Your task to perform on an android device: Show me popular videos on Youtube Image 0: 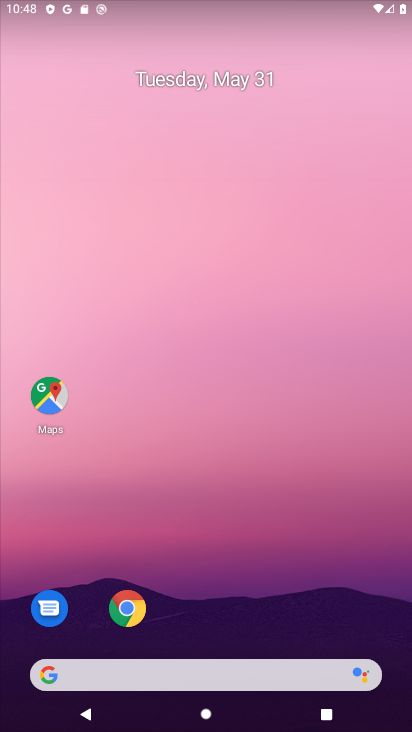
Step 0: drag from (274, 612) to (288, 3)
Your task to perform on an android device: Show me popular videos on Youtube Image 1: 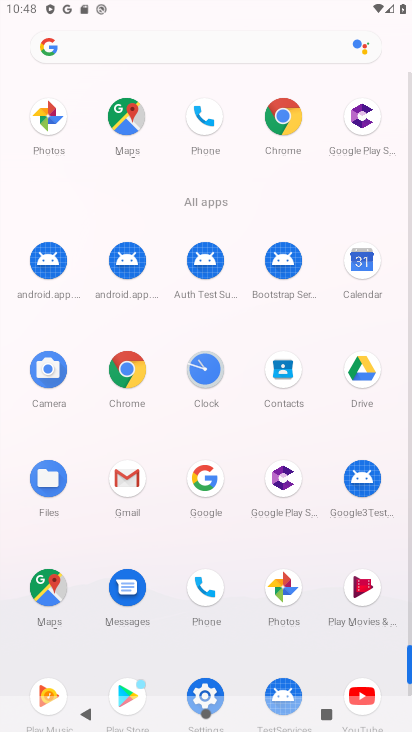
Step 1: click (362, 692)
Your task to perform on an android device: Show me popular videos on Youtube Image 2: 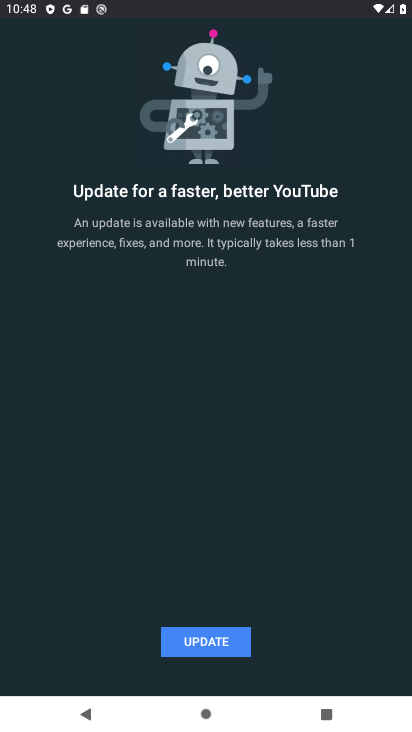
Step 2: click (200, 655)
Your task to perform on an android device: Show me popular videos on Youtube Image 3: 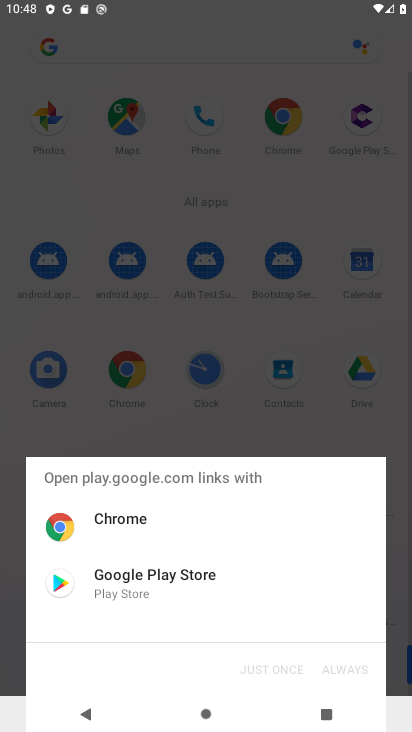
Step 3: click (109, 587)
Your task to perform on an android device: Show me popular videos on Youtube Image 4: 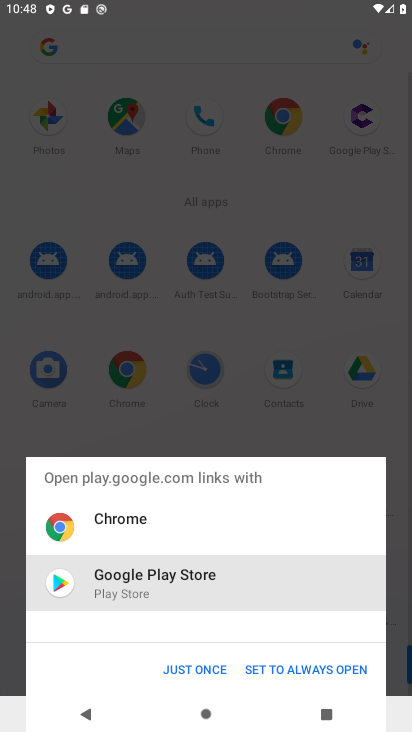
Step 4: click (128, 668)
Your task to perform on an android device: Show me popular videos on Youtube Image 5: 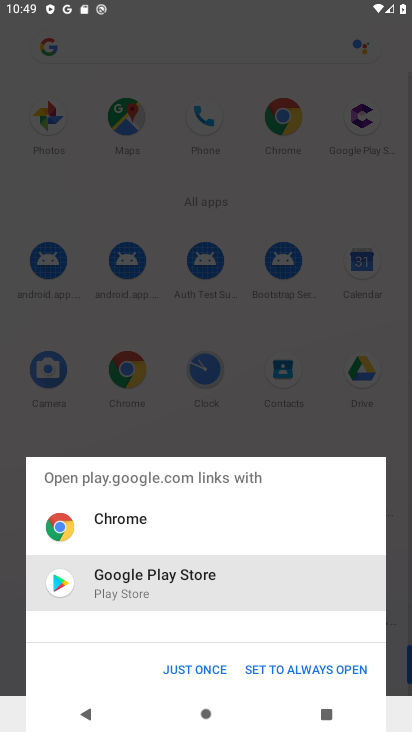
Step 5: click (167, 675)
Your task to perform on an android device: Show me popular videos on Youtube Image 6: 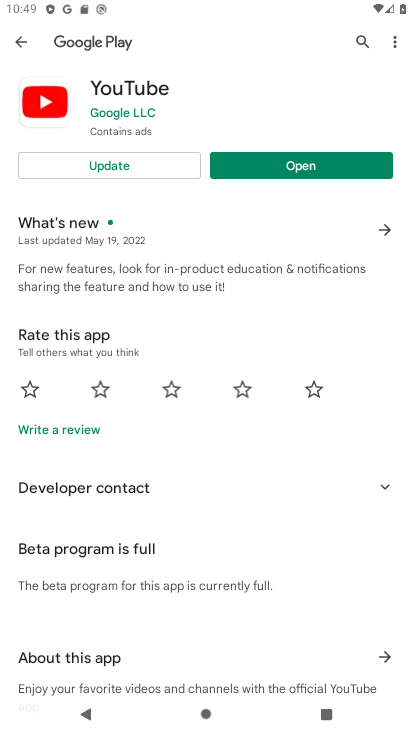
Step 6: click (171, 174)
Your task to perform on an android device: Show me popular videos on Youtube Image 7: 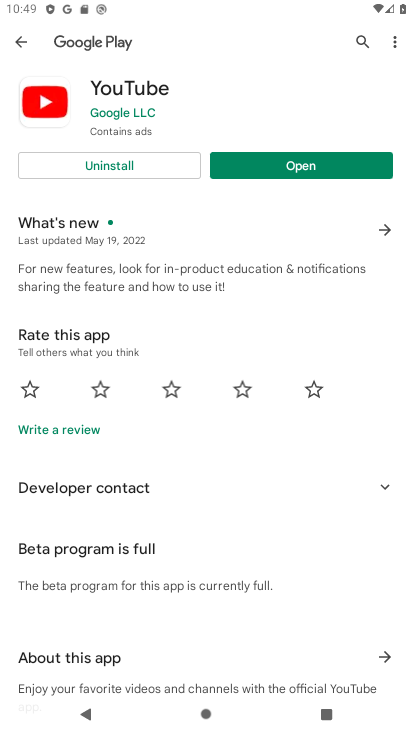
Step 7: click (275, 167)
Your task to perform on an android device: Show me popular videos on Youtube Image 8: 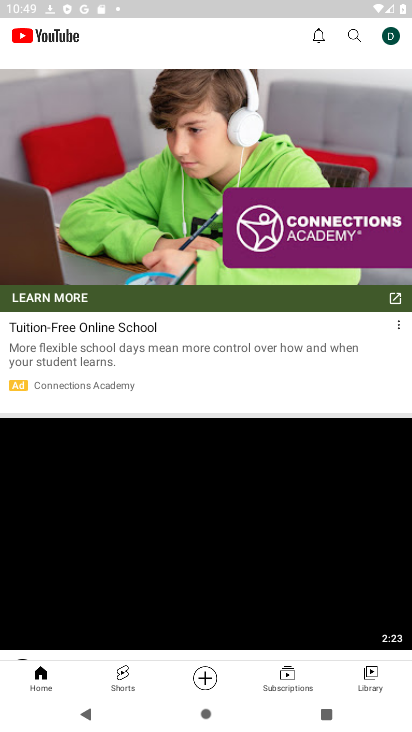
Step 8: click (352, 34)
Your task to perform on an android device: Show me popular videos on Youtube Image 9: 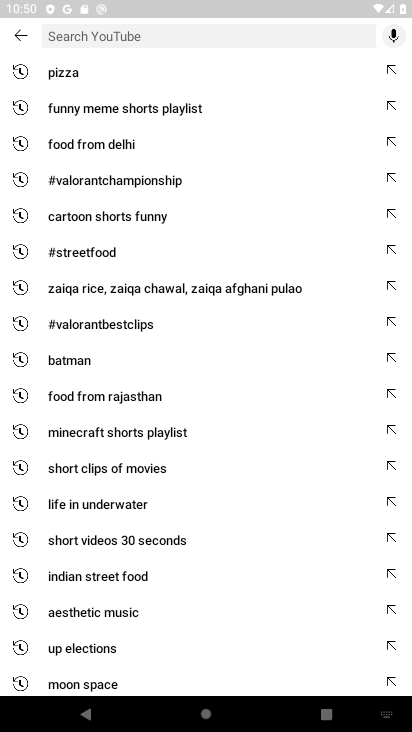
Step 9: click (150, 35)
Your task to perform on an android device: Show me popular videos on Youtube Image 10: 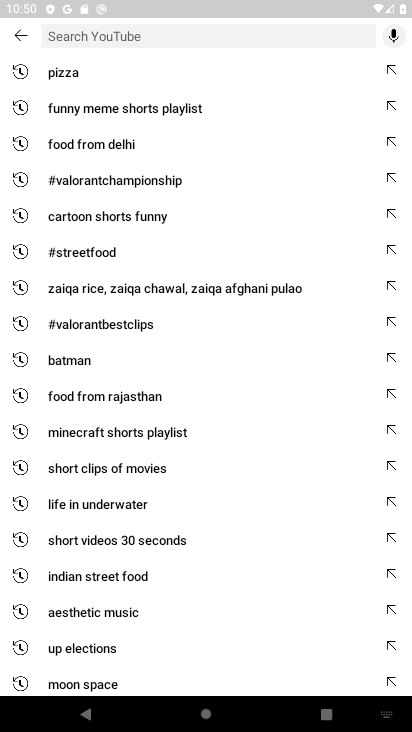
Step 10: type "popular videos "
Your task to perform on an android device: Show me popular videos on Youtube Image 11: 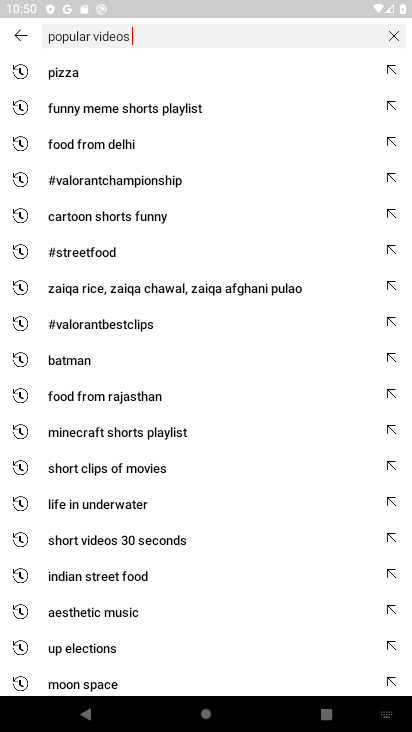
Step 11: type ""
Your task to perform on an android device: Show me popular videos on Youtube Image 12: 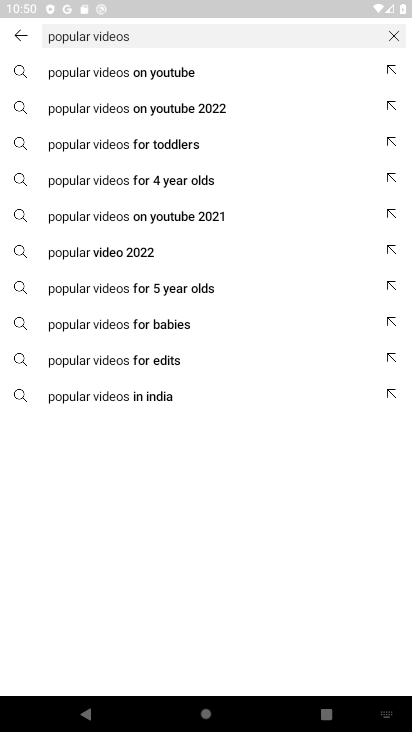
Step 12: click (134, 64)
Your task to perform on an android device: Show me popular videos on Youtube Image 13: 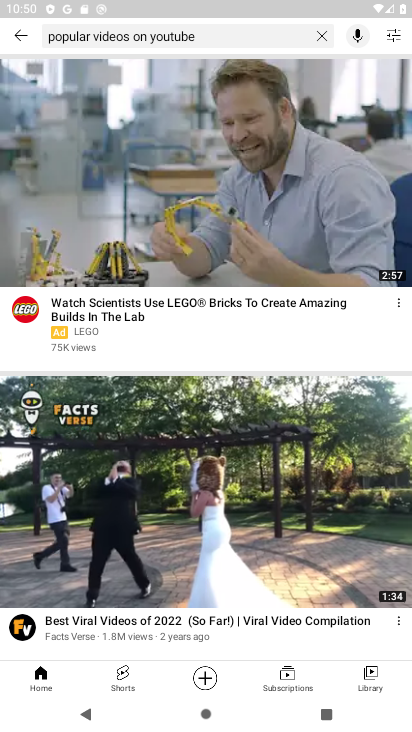
Step 13: task complete